Your task to perform on an android device: turn on wifi Image 0: 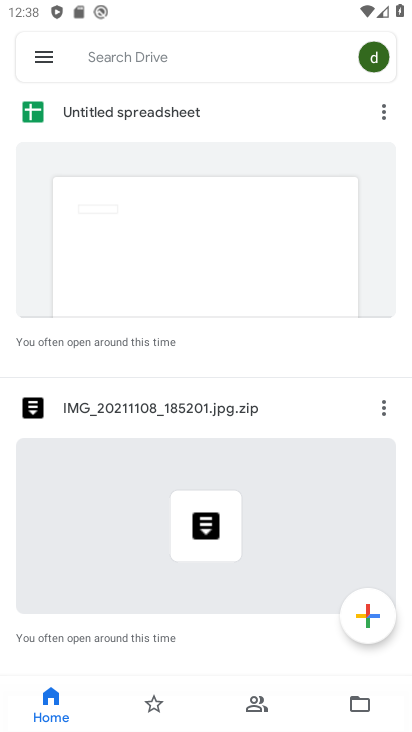
Step 0: drag from (275, 620) to (355, 294)
Your task to perform on an android device: turn on wifi Image 1: 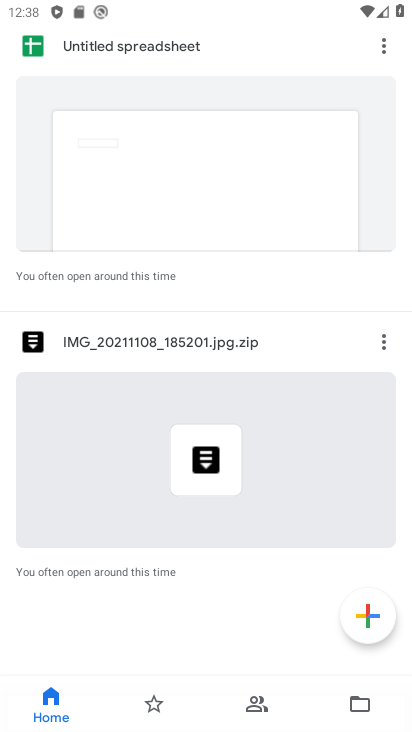
Step 1: press home button
Your task to perform on an android device: turn on wifi Image 2: 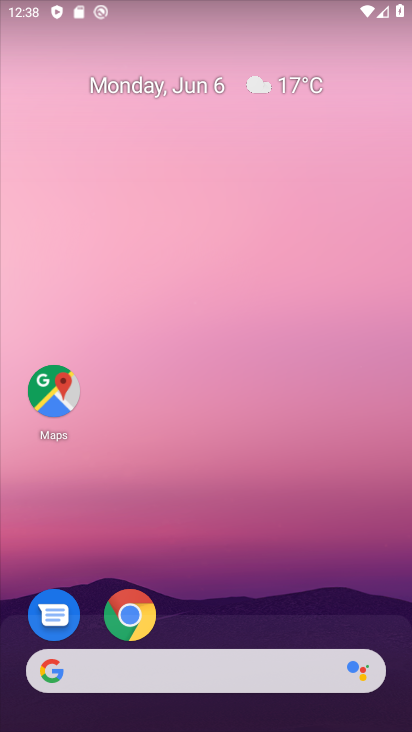
Step 2: drag from (227, 629) to (250, 311)
Your task to perform on an android device: turn on wifi Image 3: 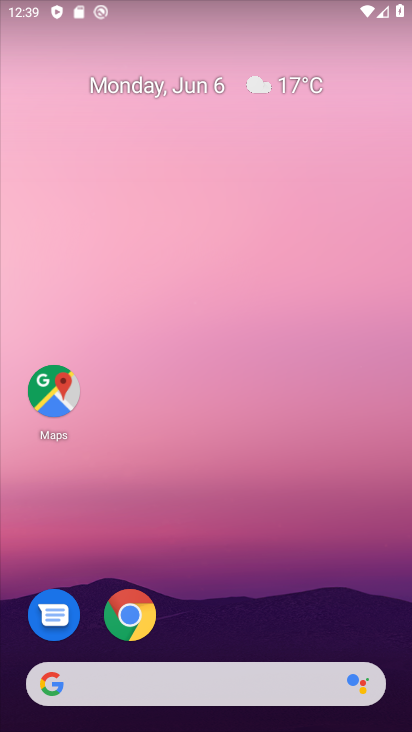
Step 3: drag from (255, 242) to (297, 163)
Your task to perform on an android device: turn on wifi Image 4: 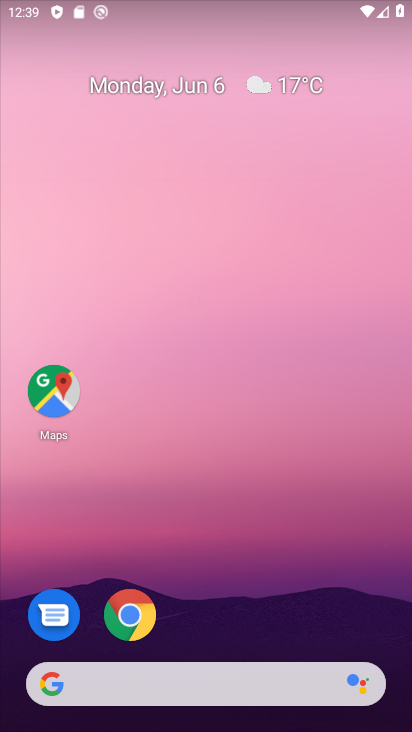
Step 4: drag from (210, 635) to (278, 156)
Your task to perform on an android device: turn on wifi Image 5: 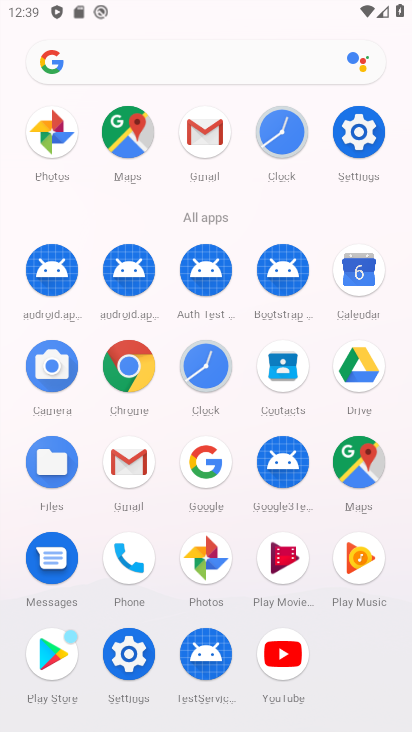
Step 5: click (349, 132)
Your task to perform on an android device: turn on wifi Image 6: 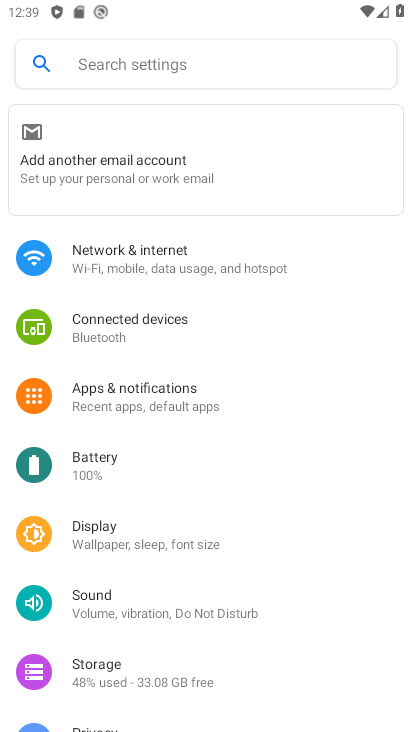
Step 6: click (143, 247)
Your task to perform on an android device: turn on wifi Image 7: 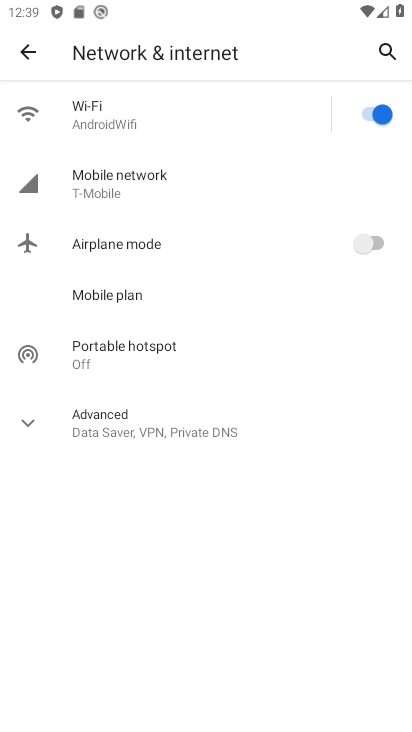
Step 7: click (150, 133)
Your task to perform on an android device: turn on wifi Image 8: 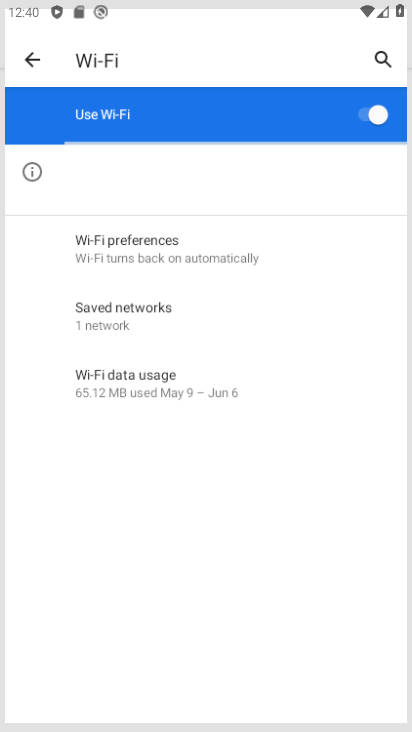
Step 8: task complete